Your task to perform on an android device: Open the stopwatch Image 0: 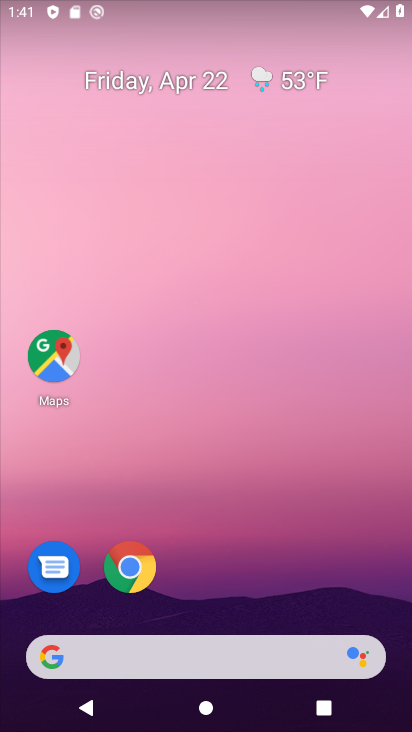
Step 0: drag from (270, 561) to (313, 113)
Your task to perform on an android device: Open the stopwatch Image 1: 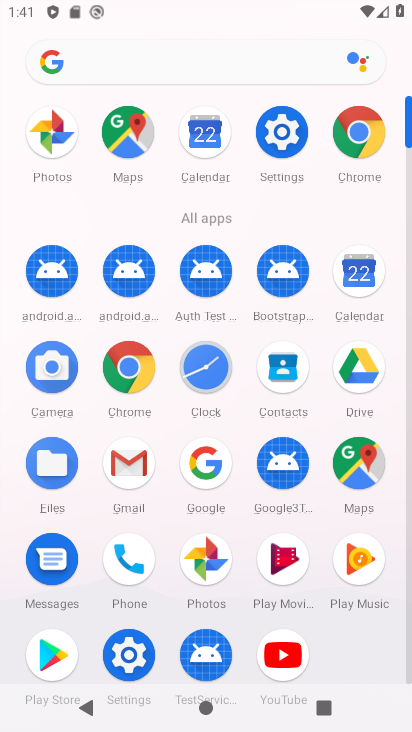
Step 1: click (215, 373)
Your task to perform on an android device: Open the stopwatch Image 2: 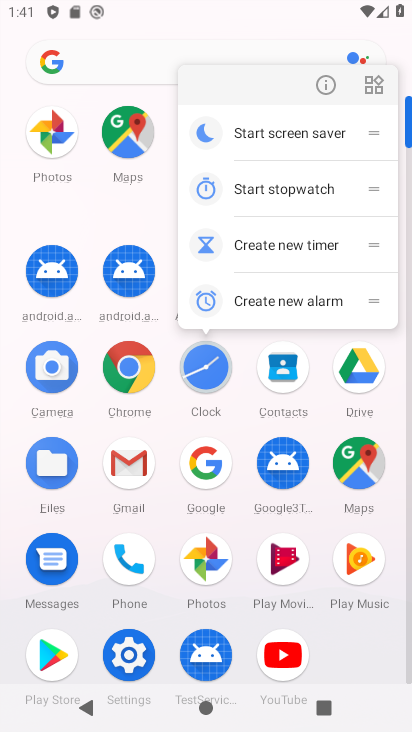
Step 2: click (215, 373)
Your task to perform on an android device: Open the stopwatch Image 3: 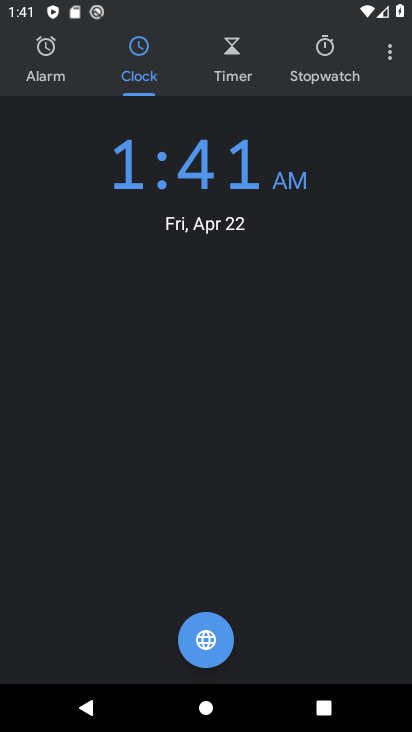
Step 3: click (324, 44)
Your task to perform on an android device: Open the stopwatch Image 4: 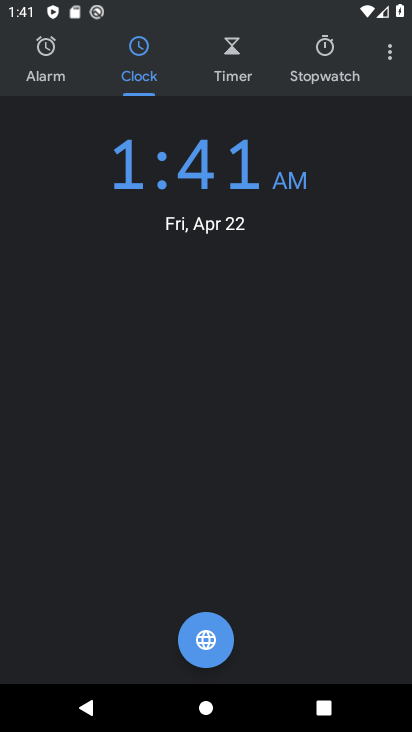
Step 4: click (324, 46)
Your task to perform on an android device: Open the stopwatch Image 5: 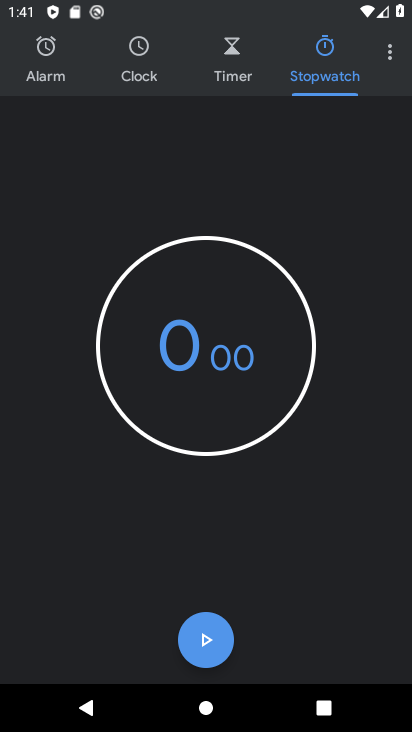
Step 5: click (242, 343)
Your task to perform on an android device: Open the stopwatch Image 6: 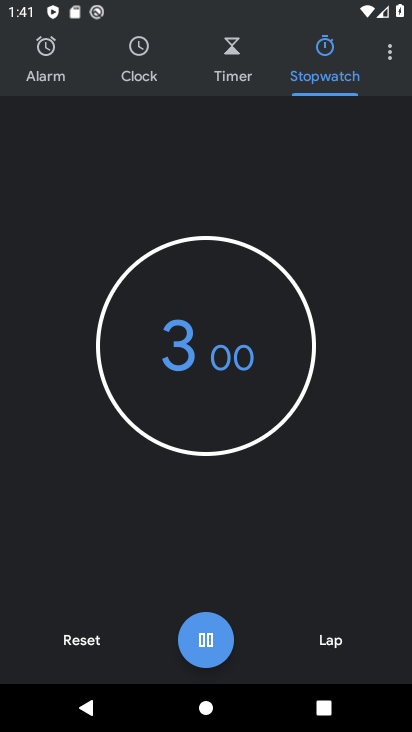
Step 6: click (208, 630)
Your task to perform on an android device: Open the stopwatch Image 7: 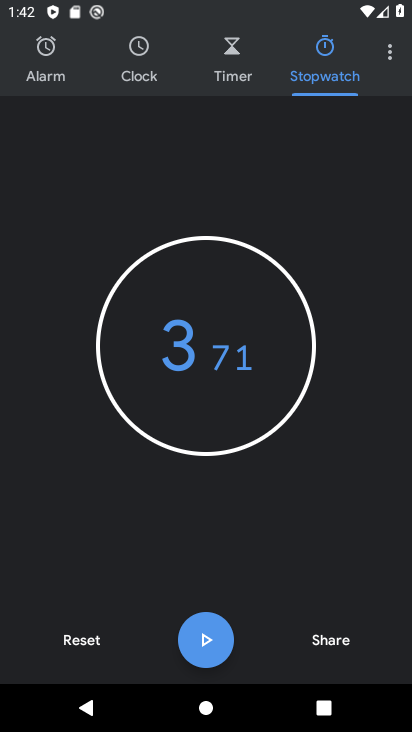
Step 7: task complete